Your task to perform on an android device: empty trash in the gmail app Image 0: 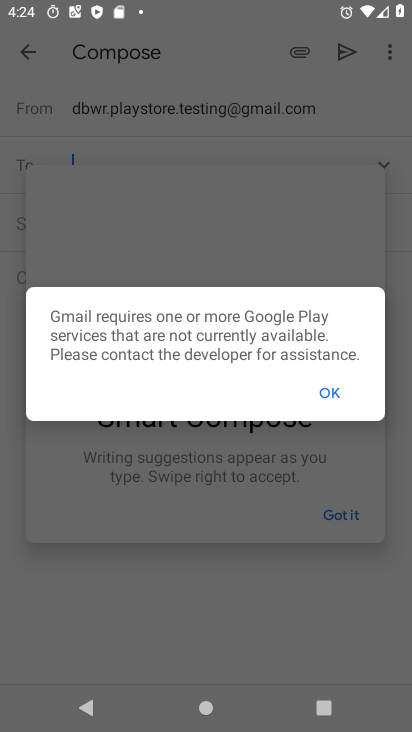
Step 0: press home button
Your task to perform on an android device: empty trash in the gmail app Image 1: 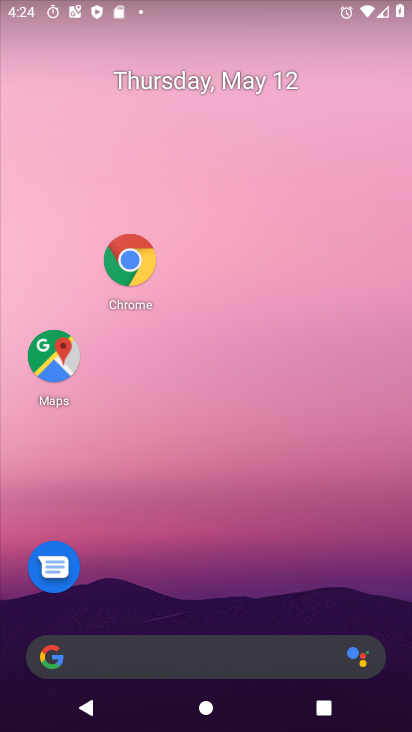
Step 1: drag from (215, 640) to (214, 239)
Your task to perform on an android device: empty trash in the gmail app Image 2: 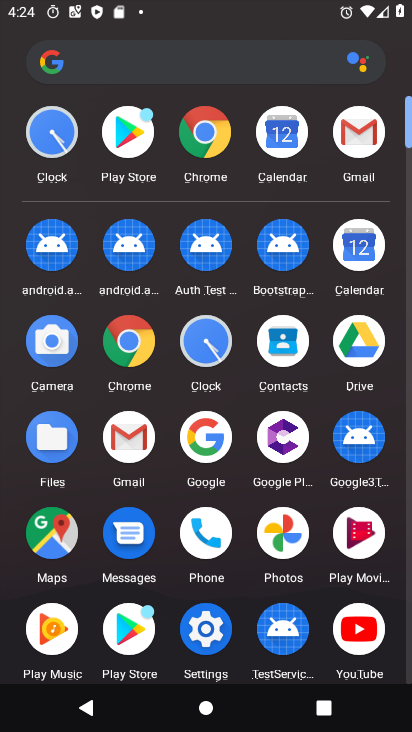
Step 2: click (138, 442)
Your task to perform on an android device: empty trash in the gmail app Image 3: 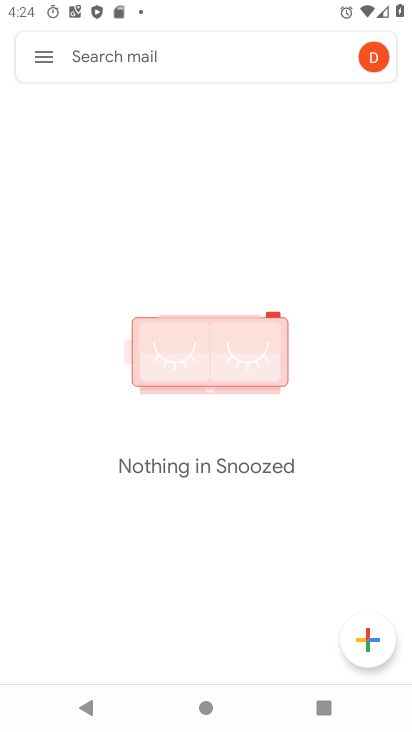
Step 3: click (40, 59)
Your task to perform on an android device: empty trash in the gmail app Image 4: 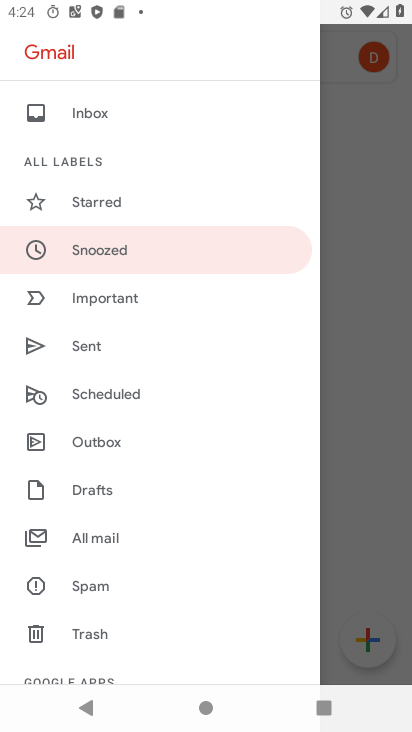
Step 4: click (99, 636)
Your task to perform on an android device: empty trash in the gmail app Image 5: 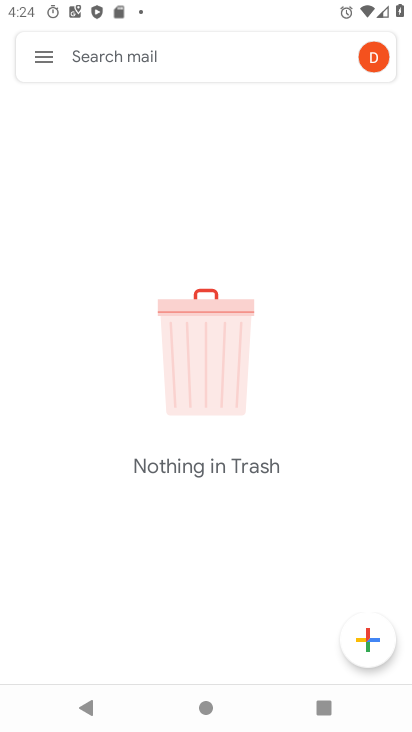
Step 5: task complete